Your task to perform on an android device: Open Google Maps and go to "Timeline" Image 0: 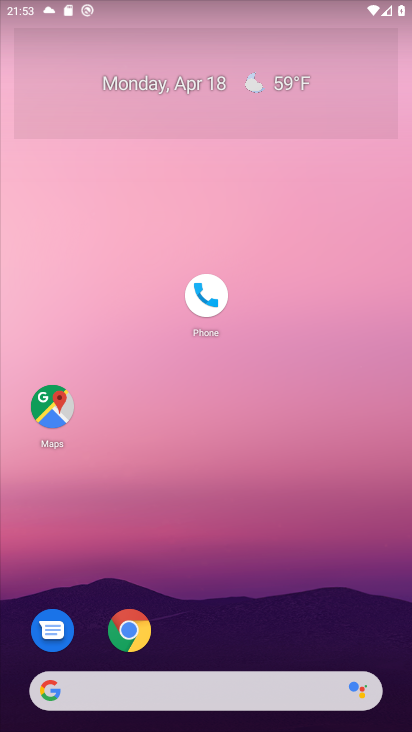
Step 0: drag from (260, 558) to (245, 89)
Your task to perform on an android device: Open Google Maps and go to "Timeline" Image 1: 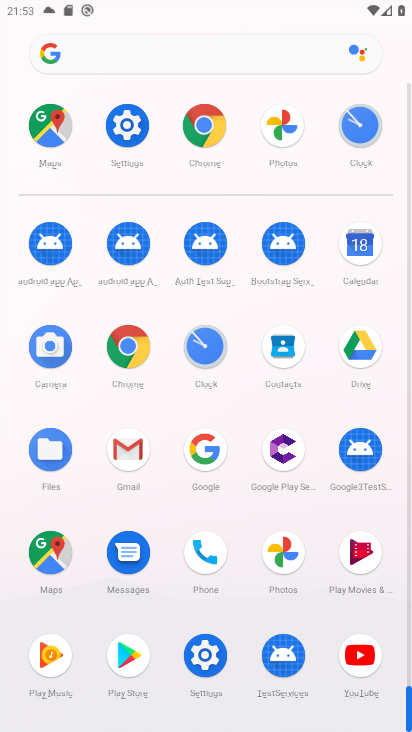
Step 1: click (52, 130)
Your task to perform on an android device: Open Google Maps and go to "Timeline" Image 2: 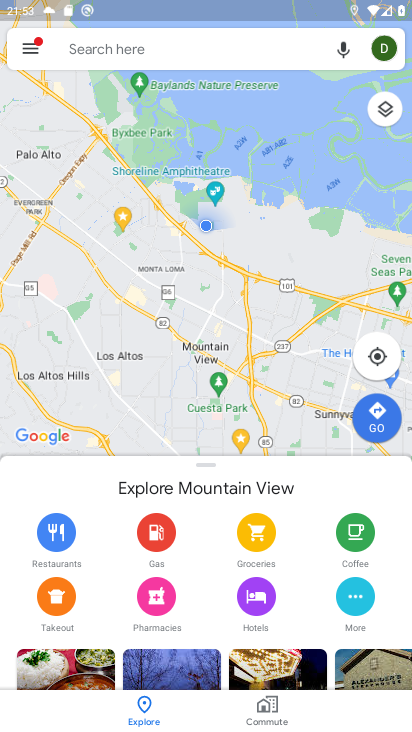
Step 2: click (34, 39)
Your task to perform on an android device: Open Google Maps and go to "Timeline" Image 3: 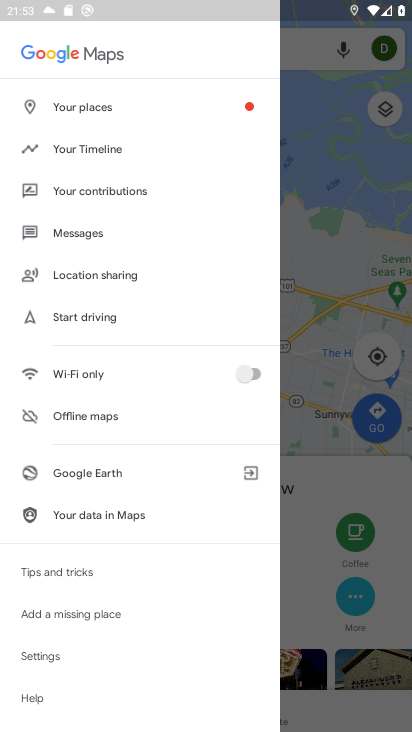
Step 3: click (114, 154)
Your task to perform on an android device: Open Google Maps and go to "Timeline" Image 4: 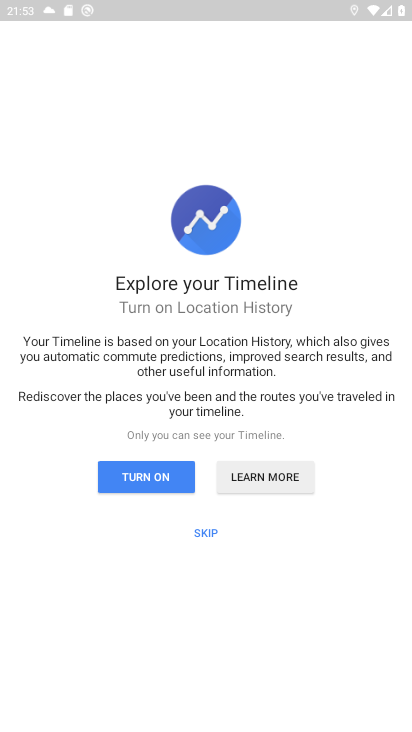
Step 4: click (196, 525)
Your task to perform on an android device: Open Google Maps and go to "Timeline" Image 5: 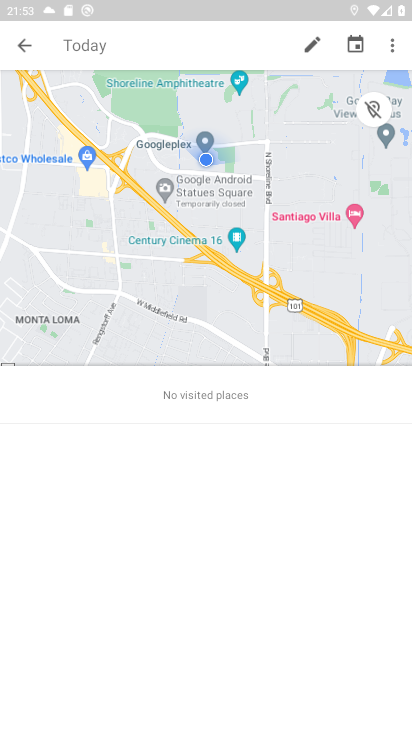
Step 5: task complete